Your task to perform on an android device: Go to privacy settings Image 0: 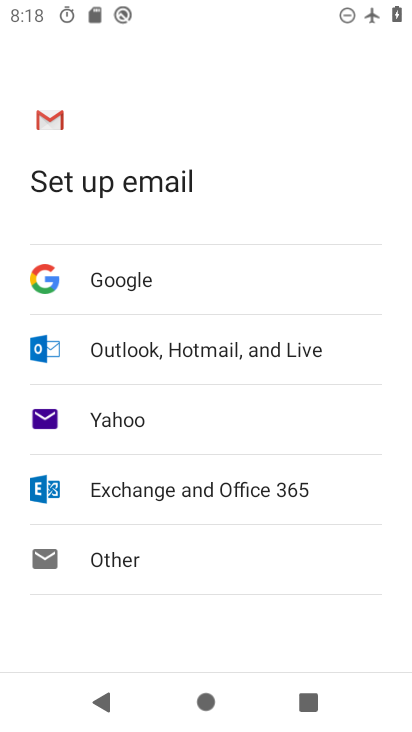
Step 0: press home button
Your task to perform on an android device: Go to privacy settings Image 1: 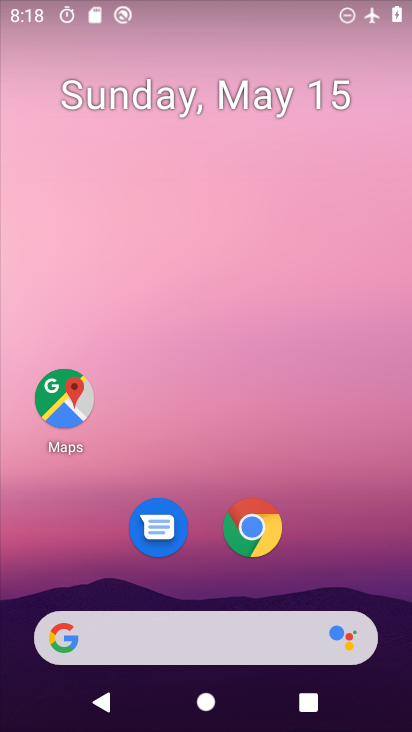
Step 1: drag from (206, 573) to (162, 25)
Your task to perform on an android device: Go to privacy settings Image 2: 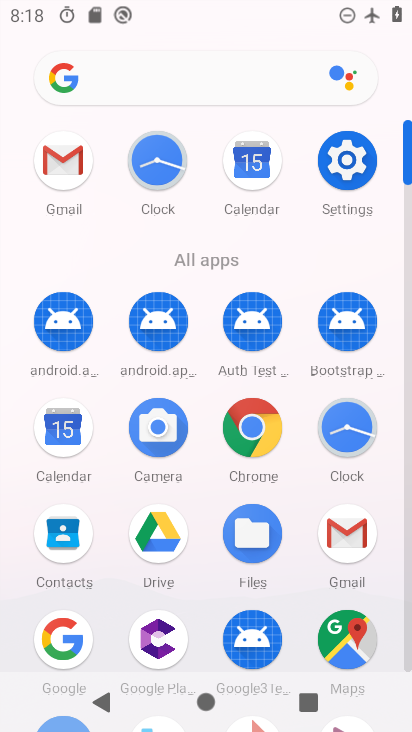
Step 2: click (332, 164)
Your task to perform on an android device: Go to privacy settings Image 3: 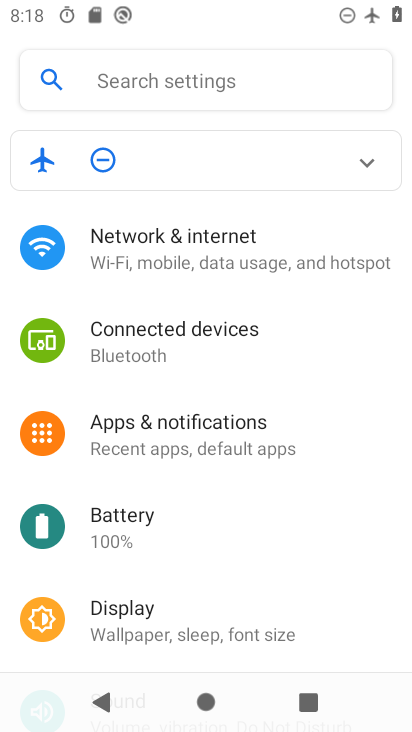
Step 3: drag from (292, 598) to (283, 260)
Your task to perform on an android device: Go to privacy settings Image 4: 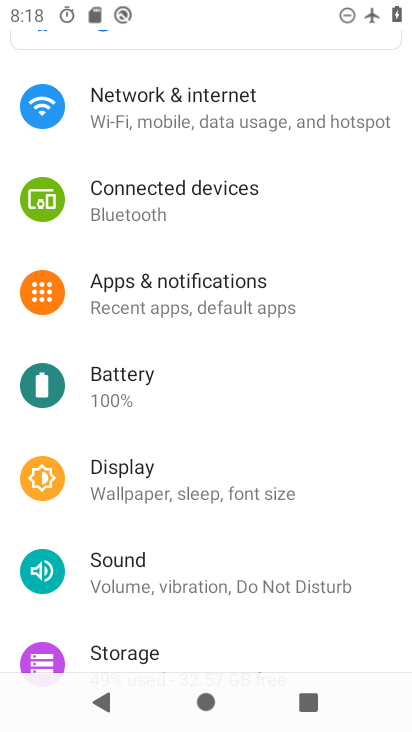
Step 4: drag from (228, 606) to (241, 260)
Your task to perform on an android device: Go to privacy settings Image 5: 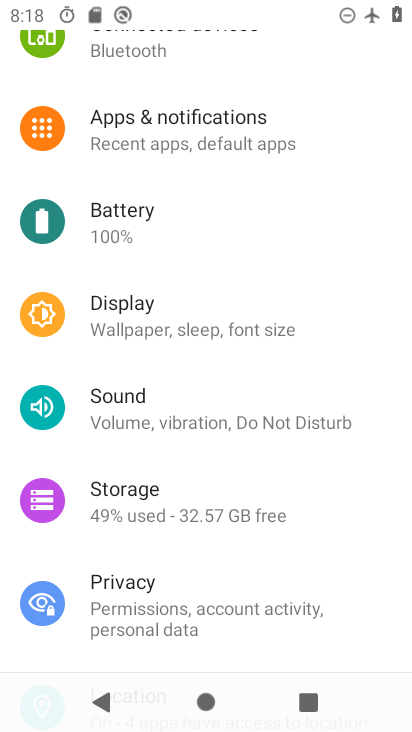
Step 5: click (196, 608)
Your task to perform on an android device: Go to privacy settings Image 6: 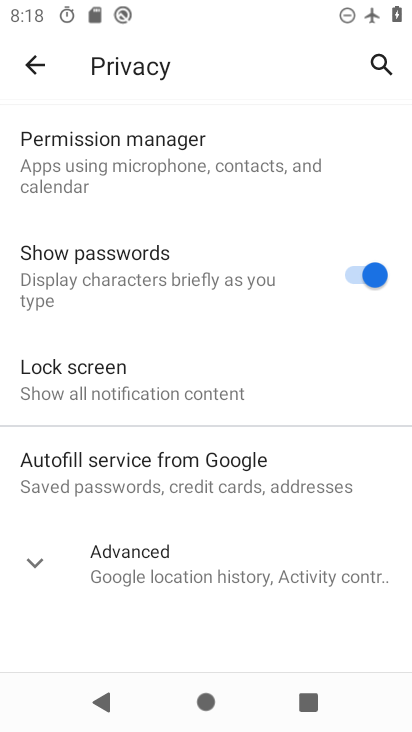
Step 6: task complete